Your task to perform on an android device: change the clock display to show seconds Image 0: 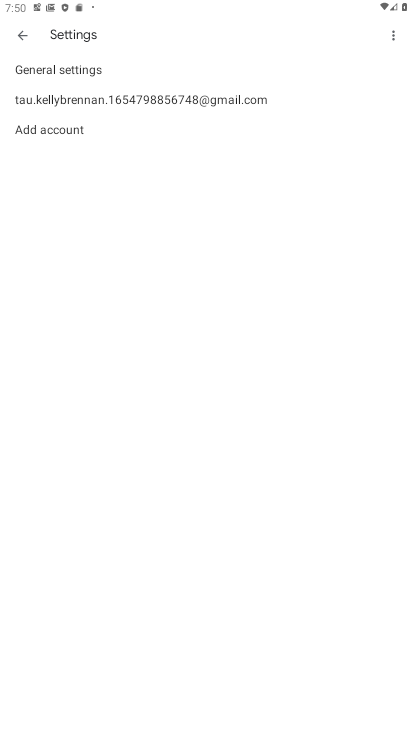
Step 0: press home button
Your task to perform on an android device: change the clock display to show seconds Image 1: 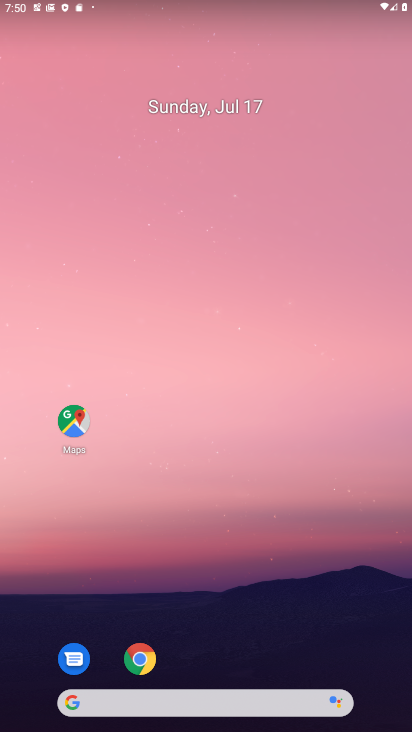
Step 1: drag from (216, 654) to (238, 174)
Your task to perform on an android device: change the clock display to show seconds Image 2: 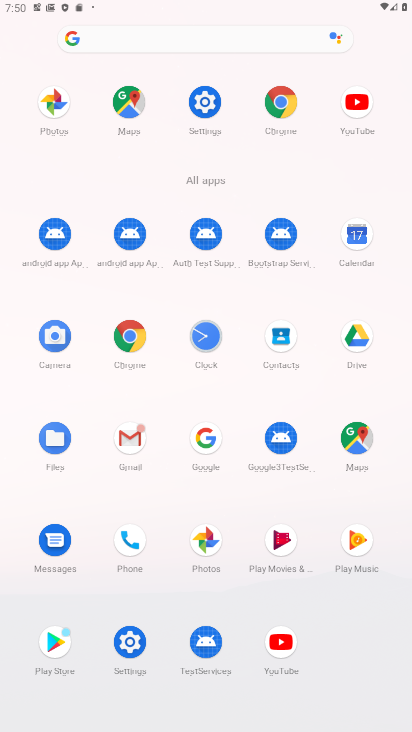
Step 2: click (209, 350)
Your task to perform on an android device: change the clock display to show seconds Image 3: 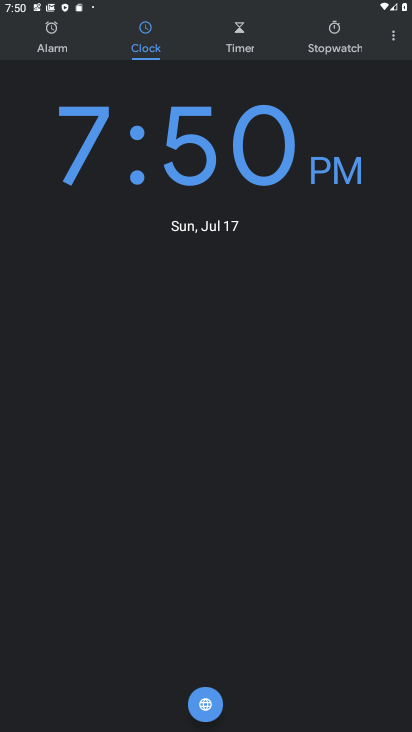
Step 3: click (387, 40)
Your task to perform on an android device: change the clock display to show seconds Image 4: 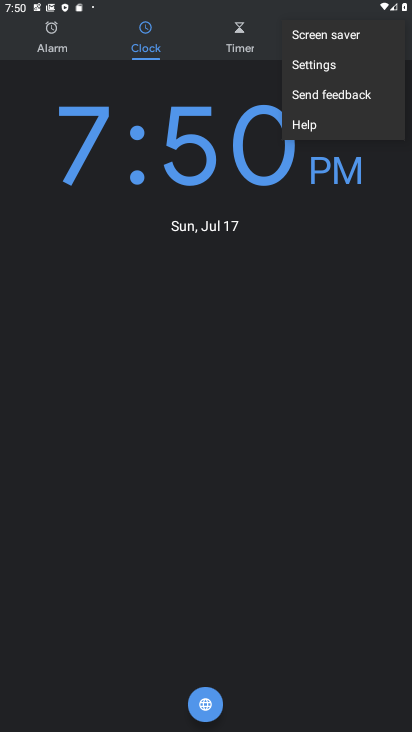
Step 4: click (350, 61)
Your task to perform on an android device: change the clock display to show seconds Image 5: 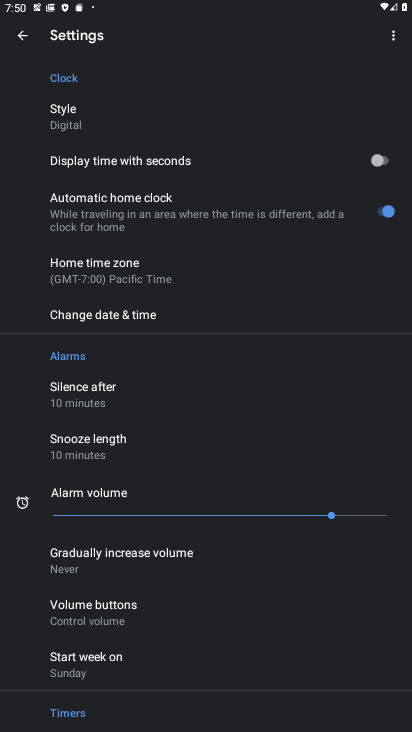
Step 5: click (398, 156)
Your task to perform on an android device: change the clock display to show seconds Image 6: 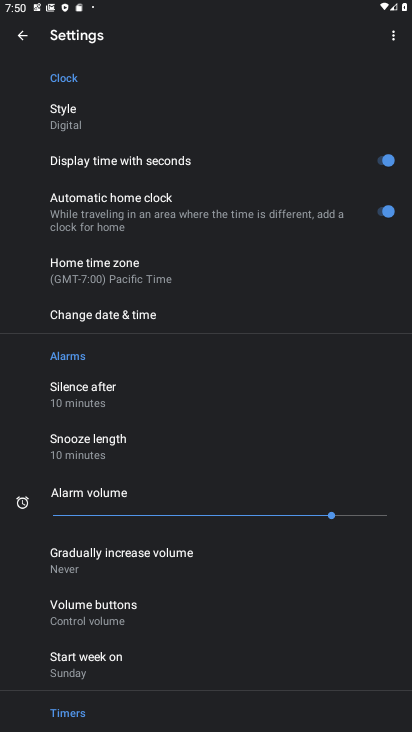
Step 6: task complete